Your task to perform on an android device: empty trash in the gmail app Image 0: 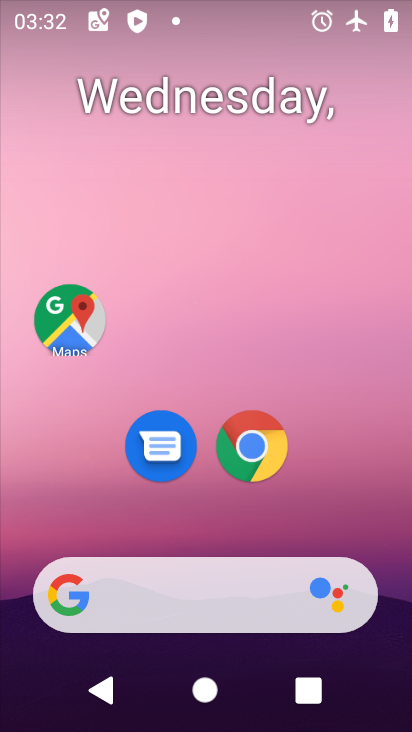
Step 0: drag from (197, 537) to (201, 265)
Your task to perform on an android device: empty trash in the gmail app Image 1: 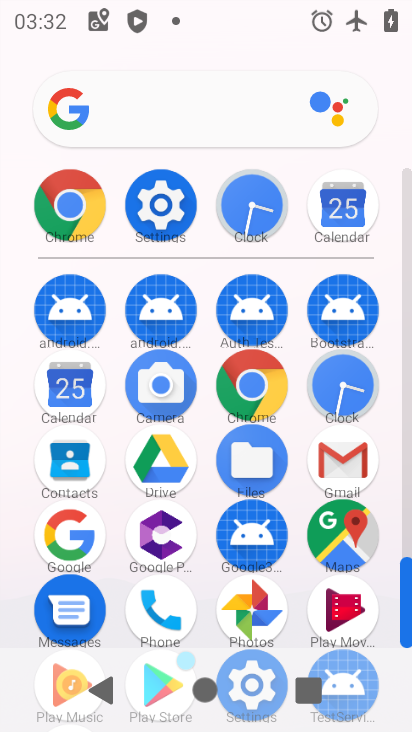
Step 1: click (349, 470)
Your task to perform on an android device: empty trash in the gmail app Image 2: 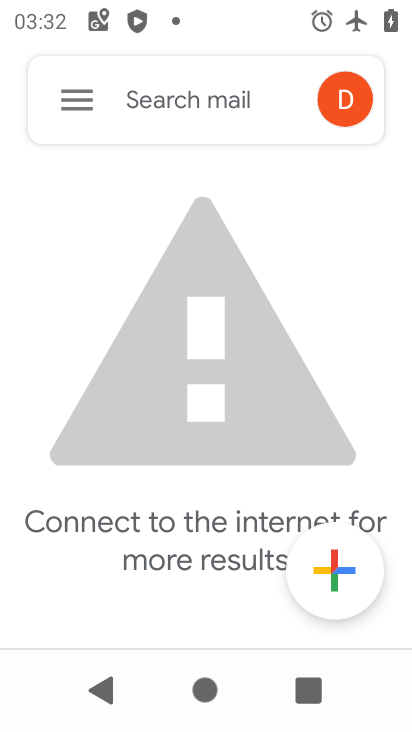
Step 2: click (83, 94)
Your task to perform on an android device: empty trash in the gmail app Image 3: 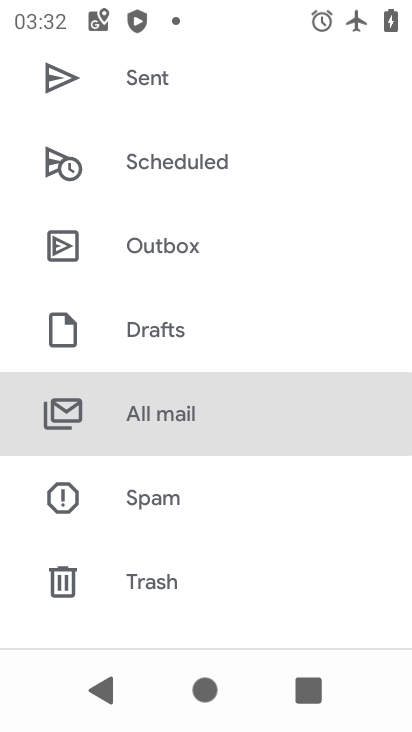
Step 3: click (218, 575)
Your task to perform on an android device: empty trash in the gmail app Image 4: 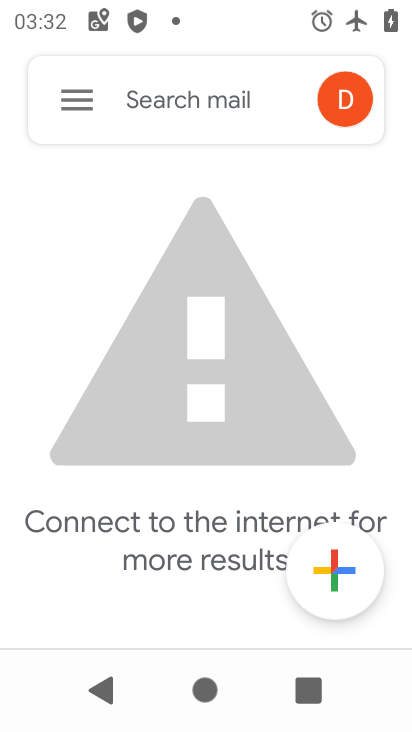
Step 4: click (72, 98)
Your task to perform on an android device: empty trash in the gmail app Image 5: 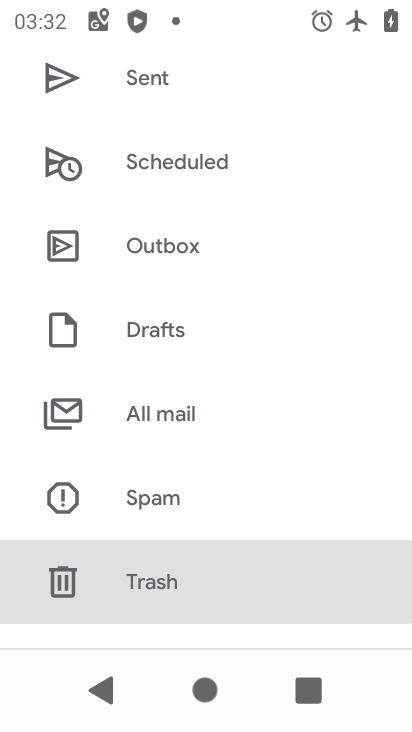
Step 5: click (175, 554)
Your task to perform on an android device: empty trash in the gmail app Image 6: 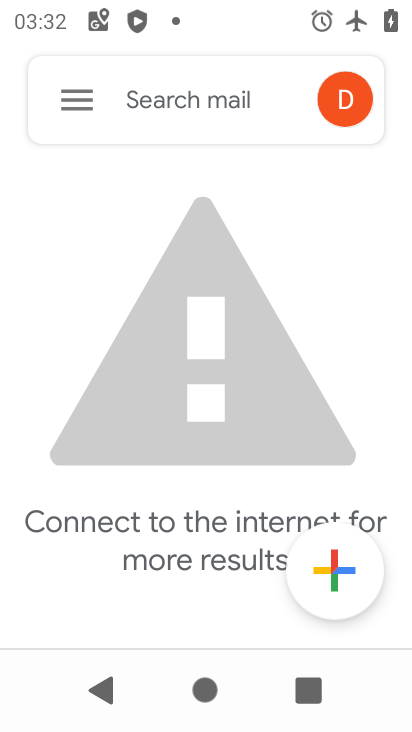
Step 6: task complete